Your task to perform on an android device: choose inbox layout in the gmail app Image 0: 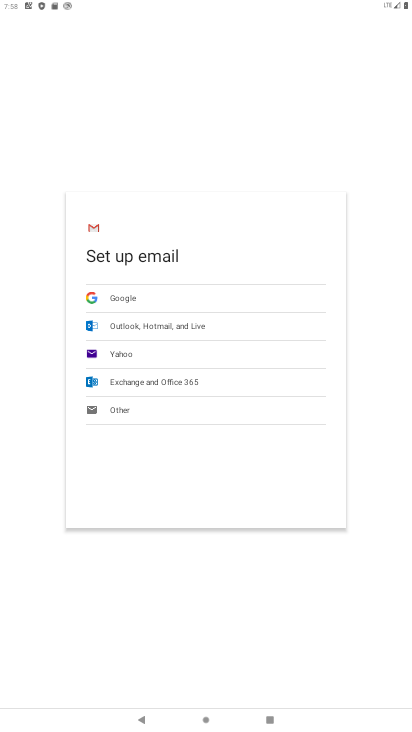
Step 0: press home button
Your task to perform on an android device: choose inbox layout in the gmail app Image 1: 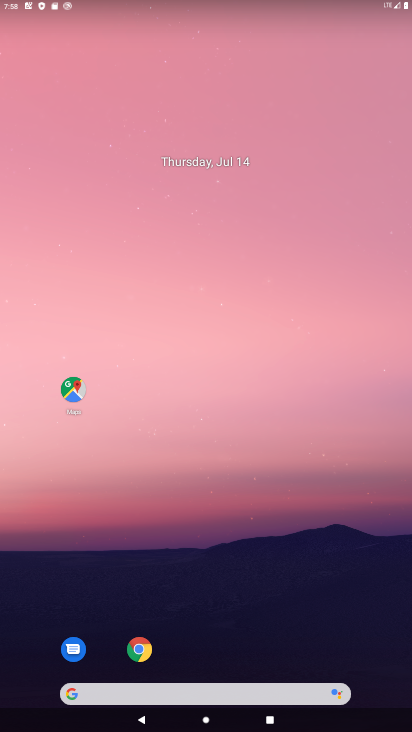
Step 1: drag from (107, 714) to (128, 123)
Your task to perform on an android device: choose inbox layout in the gmail app Image 2: 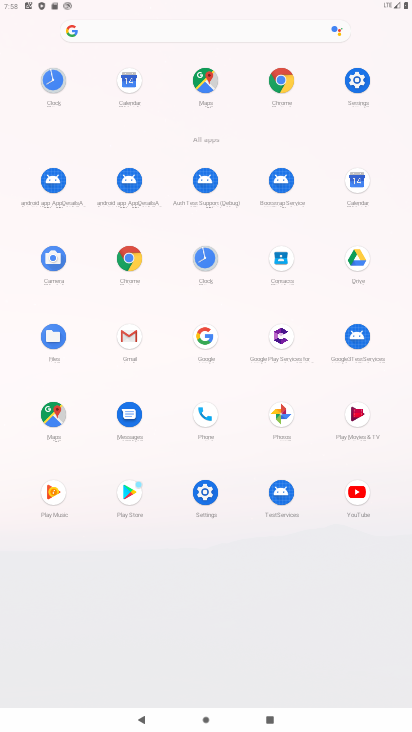
Step 2: click (135, 336)
Your task to perform on an android device: choose inbox layout in the gmail app Image 3: 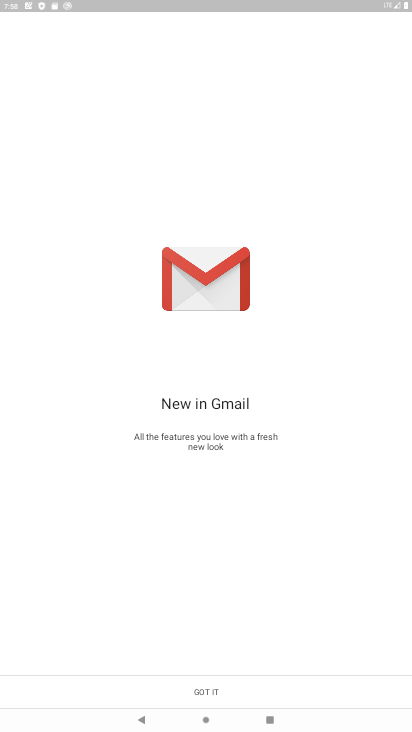
Step 3: click (175, 693)
Your task to perform on an android device: choose inbox layout in the gmail app Image 4: 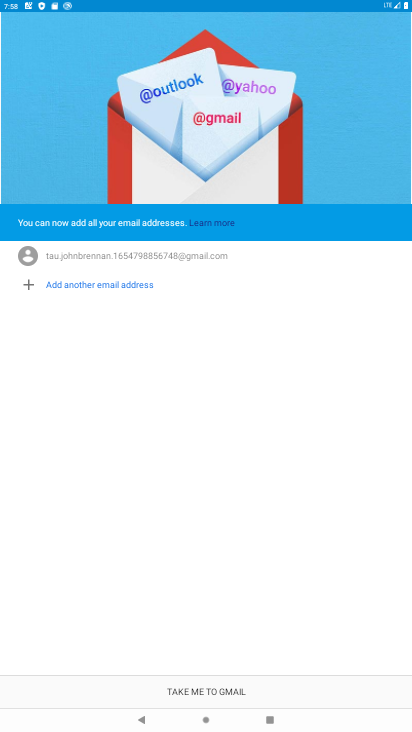
Step 4: click (234, 687)
Your task to perform on an android device: choose inbox layout in the gmail app Image 5: 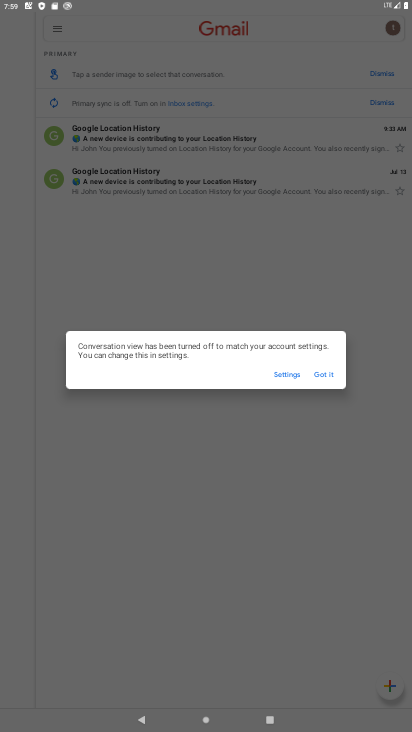
Step 5: click (318, 370)
Your task to perform on an android device: choose inbox layout in the gmail app Image 6: 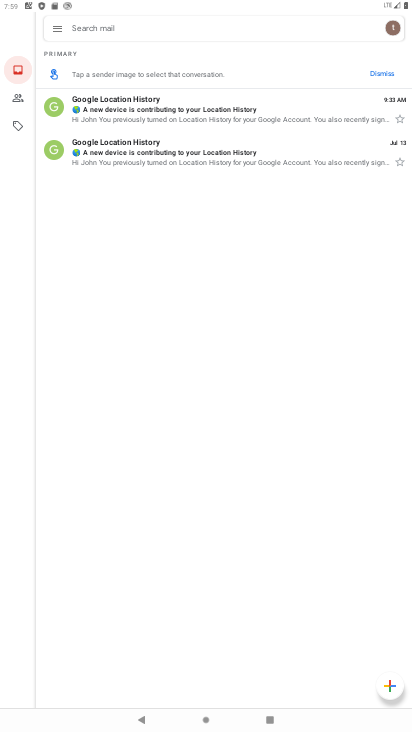
Step 6: click (56, 29)
Your task to perform on an android device: choose inbox layout in the gmail app Image 7: 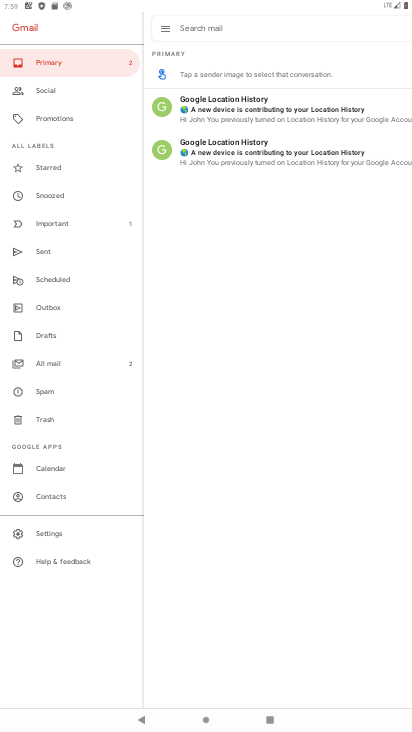
Step 7: click (68, 534)
Your task to perform on an android device: choose inbox layout in the gmail app Image 8: 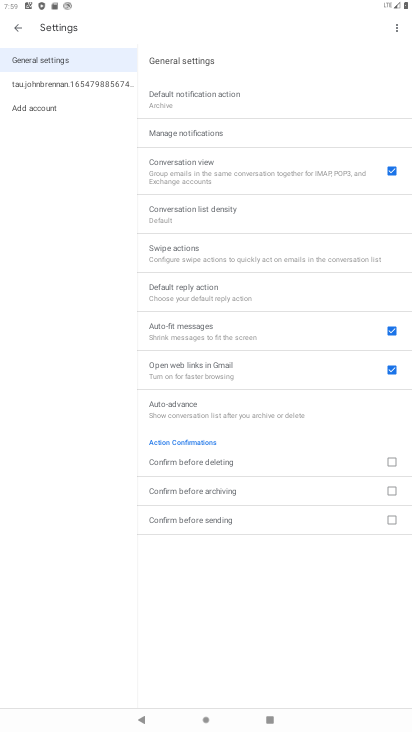
Step 8: click (103, 80)
Your task to perform on an android device: choose inbox layout in the gmail app Image 9: 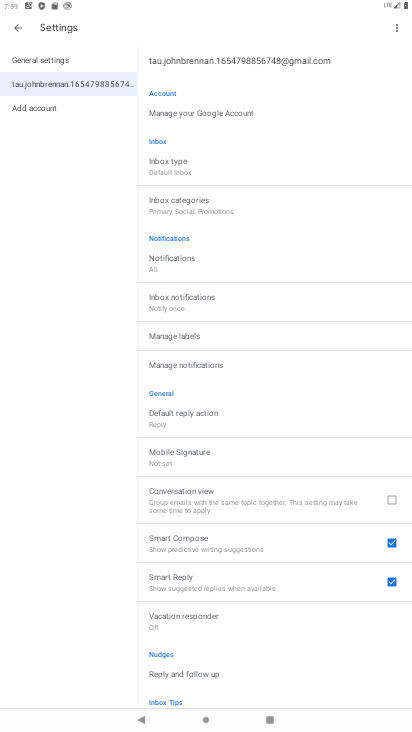
Step 9: click (172, 170)
Your task to perform on an android device: choose inbox layout in the gmail app Image 10: 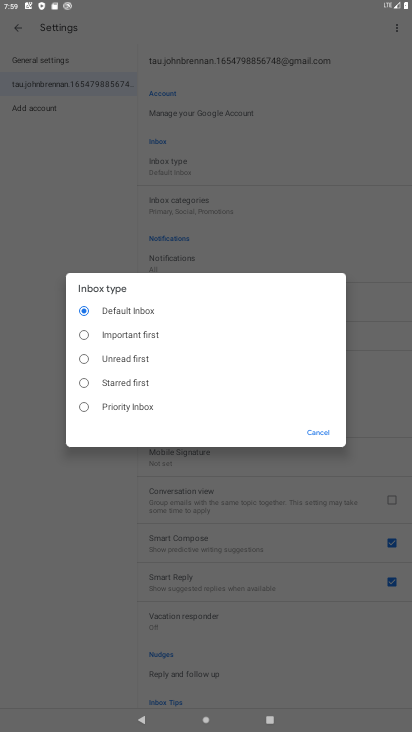
Step 10: click (123, 338)
Your task to perform on an android device: choose inbox layout in the gmail app Image 11: 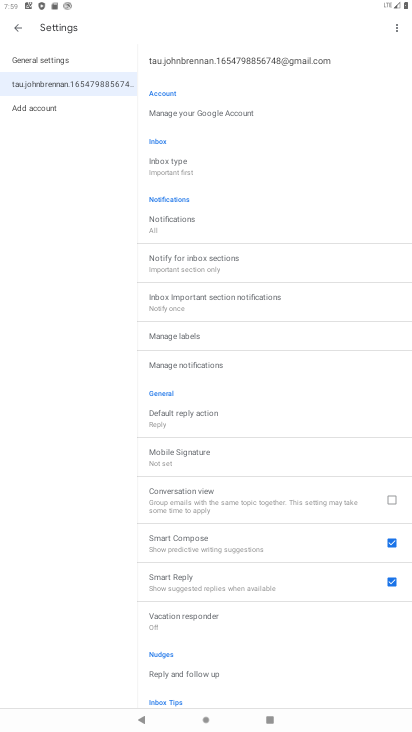
Step 11: task complete